Your task to perform on an android device: remove spam from my inbox in the gmail app Image 0: 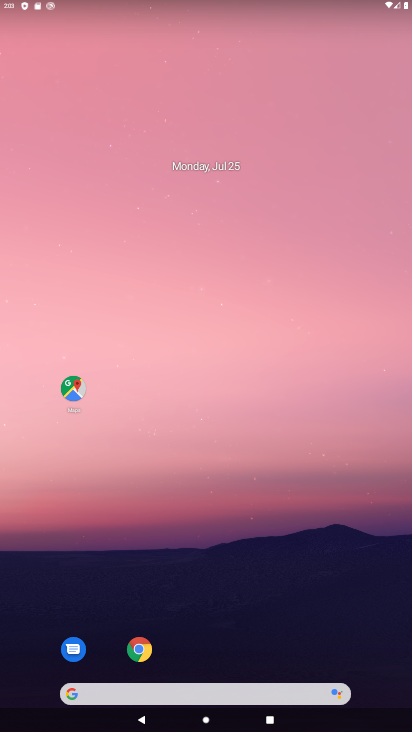
Step 0: drag from (253, 669) to (262, 2)
Your task to perform on an android device: remove spam from my inbox in the gmail app Image 1: 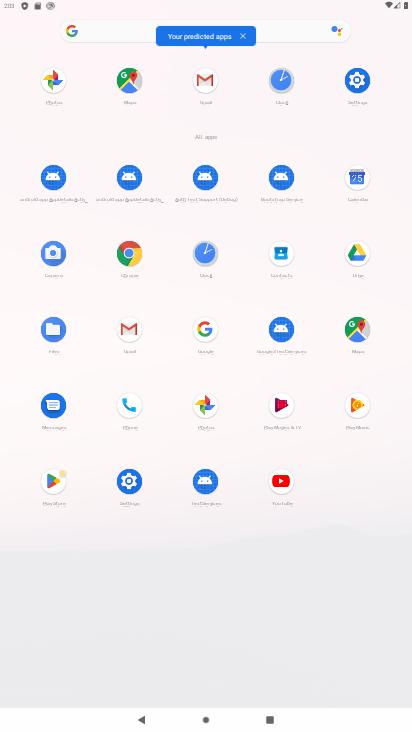
Step 1: click (206, 86)
Your task to perform on an android device: remove spam from my inbox in the gmail app Image 2: 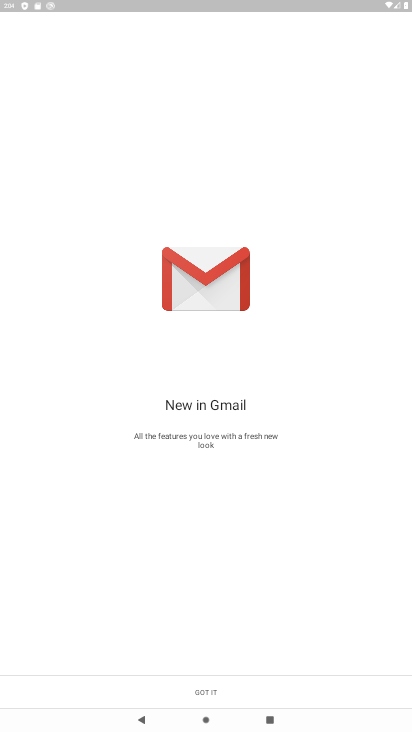
Step 2: click (207, 691)
Your task to perform on an android device: remove spam from my inbox in the gmail app Image 3: 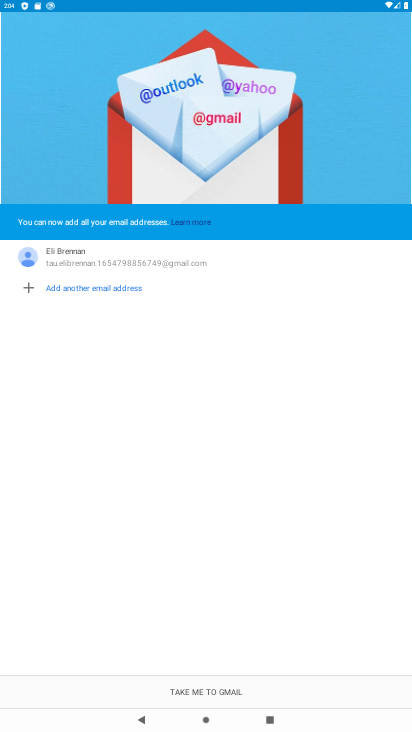
Step 3: click (201, 689)
Your task to perform on an android device: remove spam from my inbox in the gmail app Image 4: 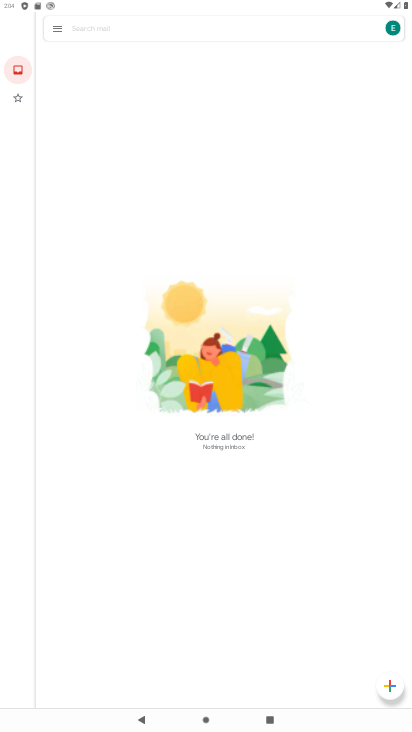
Step 4: click (59, 28)
Your task to perform on an android device: remove spam from my inbox in the gmail app Image 5: 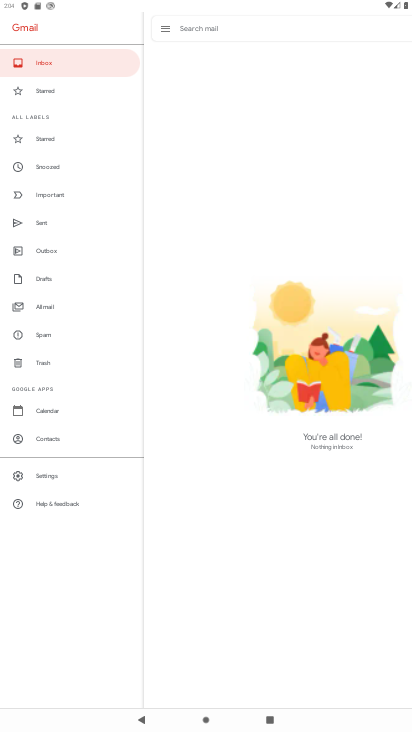
Step 5: click (38, 340)
Your task to perform on an android device: remove spam from my inbox in the gmail app Image 6: 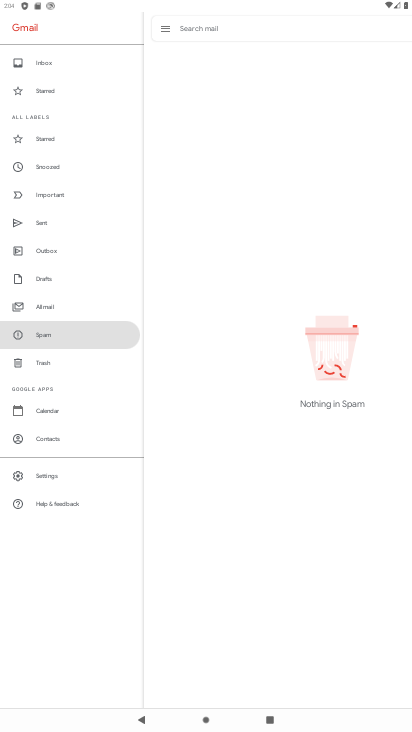
Step 6: task complete